Your task to perform on an android device: turn on the 12-hour format for clock Image 0: 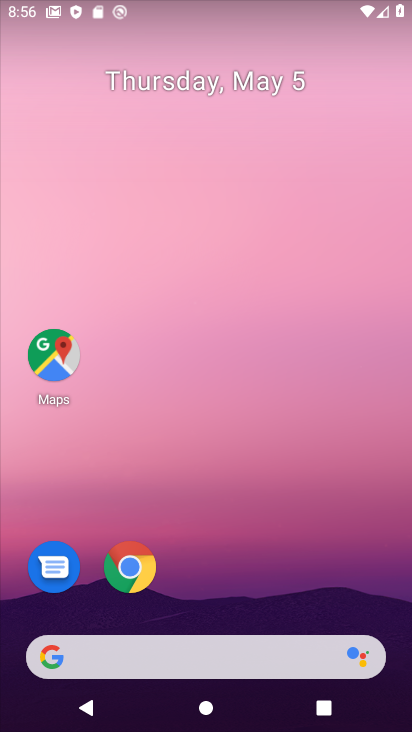
Step 0: drag from (203, 639) to (305, 152)
Your task to perform on an android device: turn on the 12-hour format for clock Image 1: 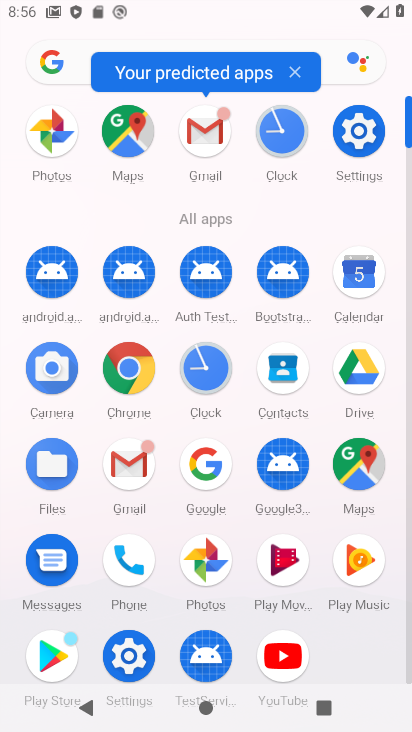
Step 1: click (191, 358)
Your task to perform on an android device: turn on the 12-hour format for clock Image 2: 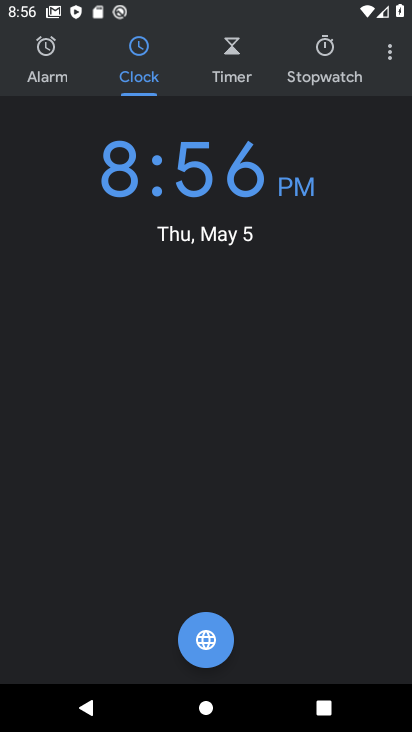
Step 2: click (386, 57)
Your task to perform on an android device: turn on the 12-hour format for clock Image 3: 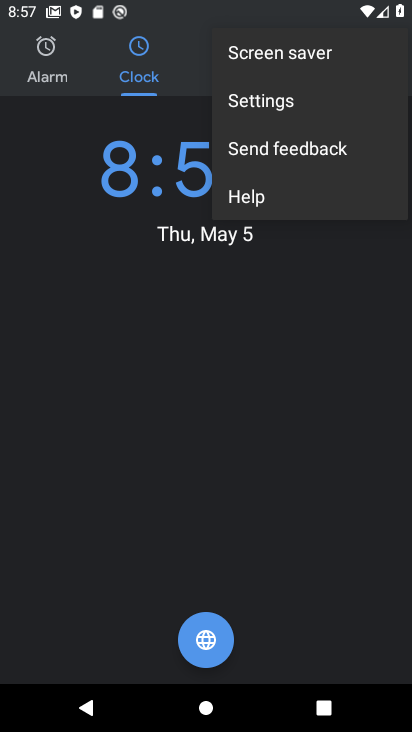
Step 3: click (344, 90)
Your task to perform on an android device: turn on the 12-hour format for clock Image 4: 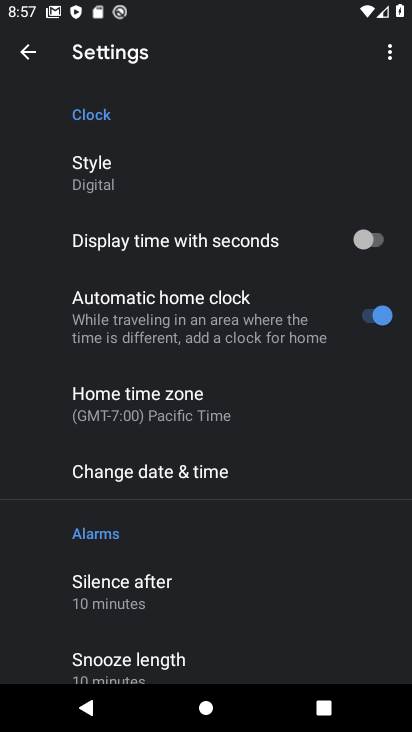
Step 4: click (224, 471)
Your task to perform on an android device: turn on the 12-hour format for clock Image 5: 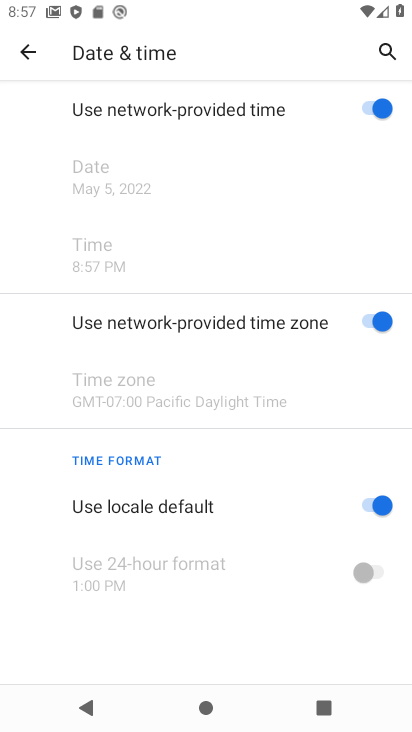
Step 5: task complete